Your task to perform on an android device: Open Google Chrome Image 0: 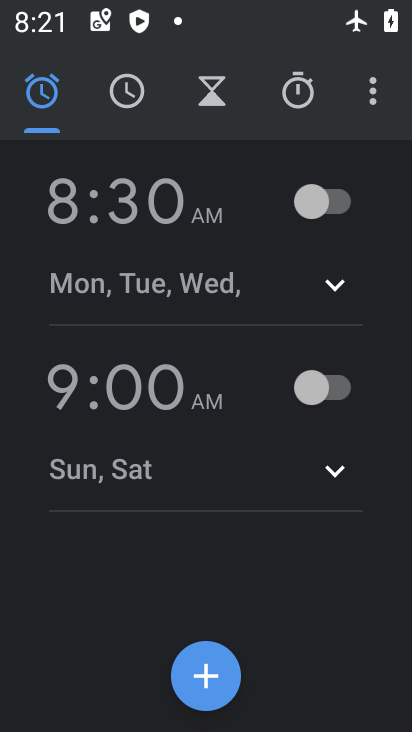
Step 0: press home button
Your task to perform on an android device: Open Google Chrome Image 1: 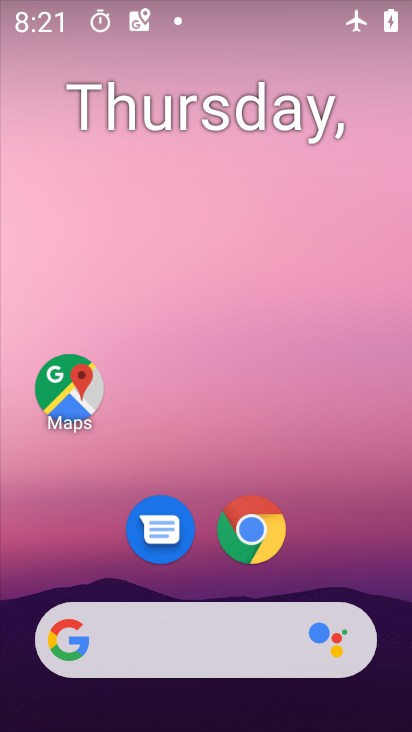
Step 1: drag from (377, 573) to (382, 250)
Your task to perform on an android device: Open Google Chrome Image 2: 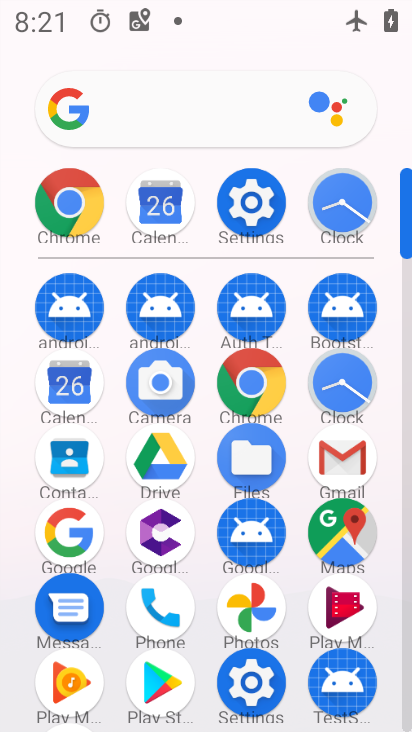
Step 2: click (260, 390)
Your task to perform on an android device: Open Google Chrome Image 3: 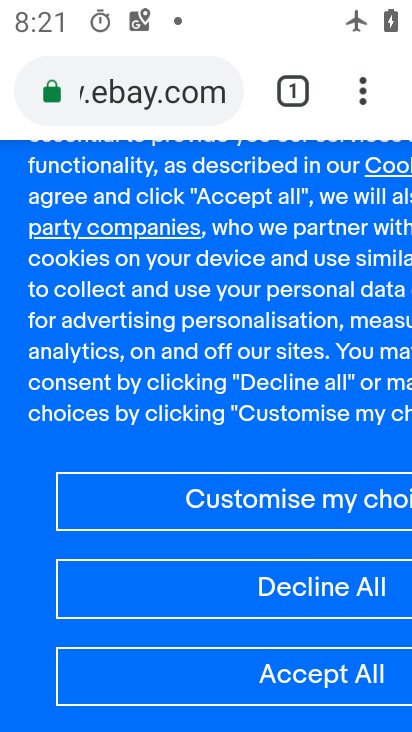
Step 3: task complete